Your task to perform on an android device: Open settings on Google Maps Image 0: 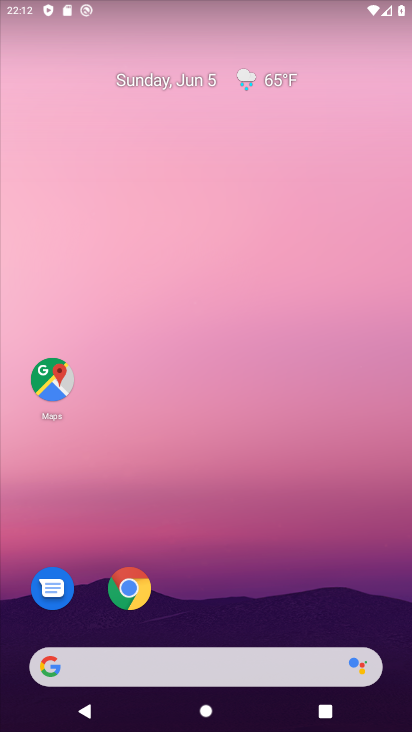
Step 0: drag from (184, 633) to (292, 78)
Your task to perform on an android device: Open settings on Google Maps Image 1: 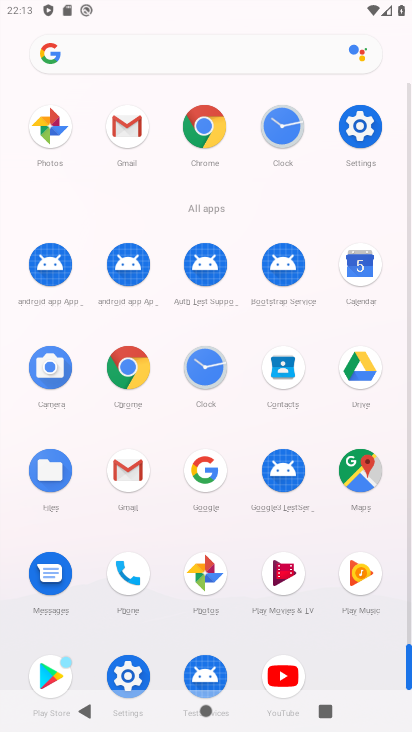
Step 1: click (366, 477)
Your task to perform on an android device: Open settings on Google Maps Image 2: 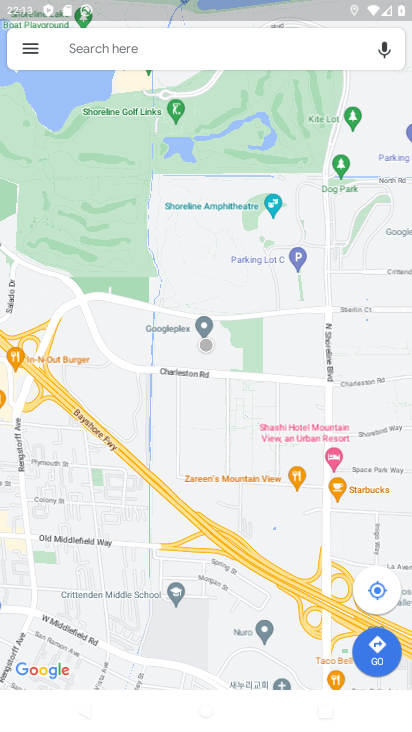
Step 2: click (38, 52)
Your task to perform on an android device: Open settings on Google Maps Image 3: 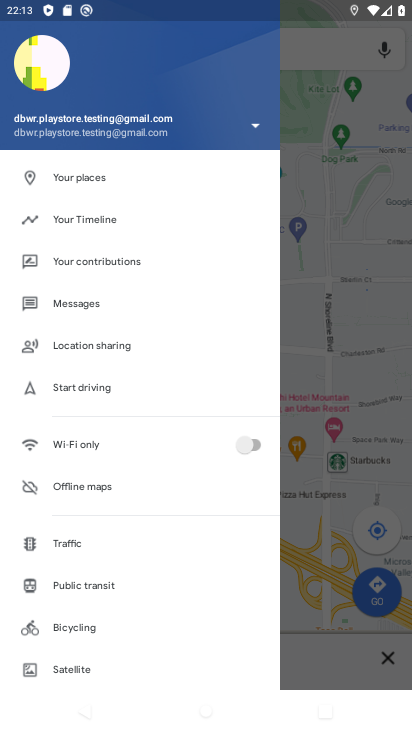
Step 3: drag from (90, 634) to (190, 302)
Your task to perform on an android device: Open settings on Google Maps Image 4: 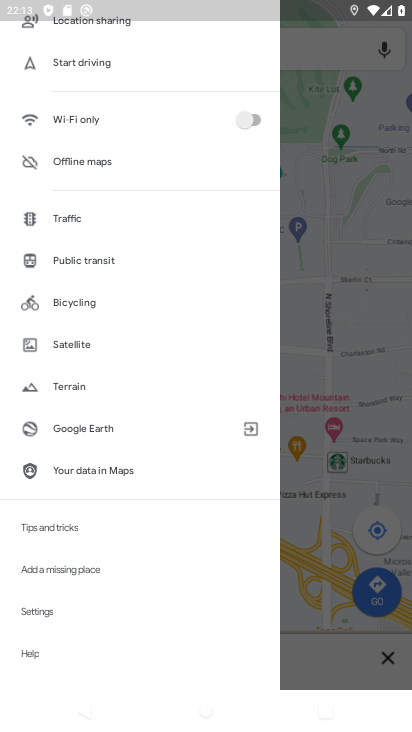
Step 4: click (101, 624)
Your task to perform on an android device: Open settings on Google Maps Image 5: 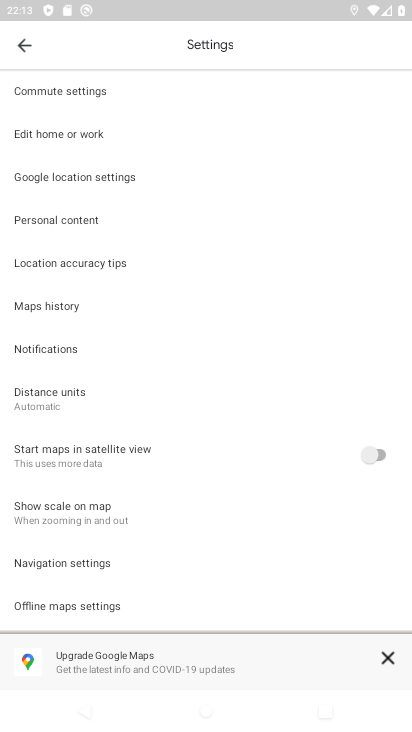
Step 5: task complete